Your task to perform on an android device: Search for Mexican restaurants on Maps Image 0: 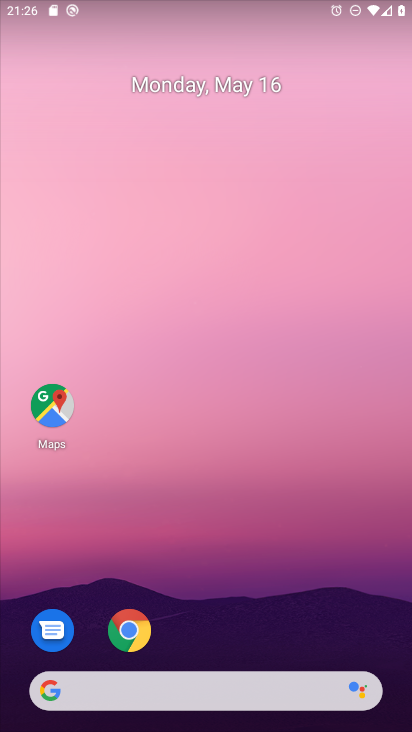
Step 0: click (63, 414)
Your task to perform on an android device: Search for Mexican restaurants on Maps Image 1: 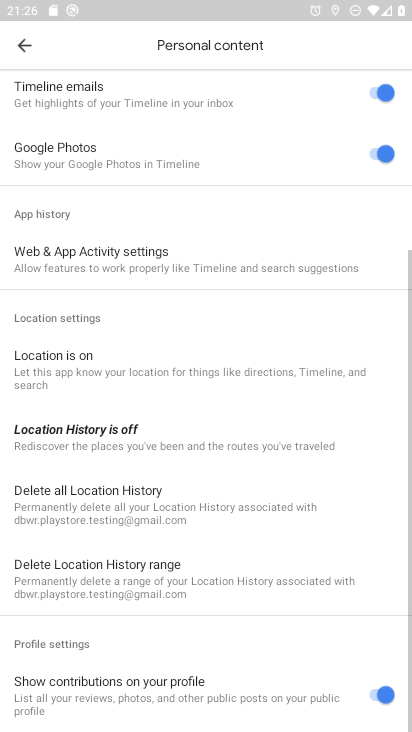
Step 1: click (23, 56)
Your task to perform on an android device: Search for Mexican restaurants on Maps Image 2: 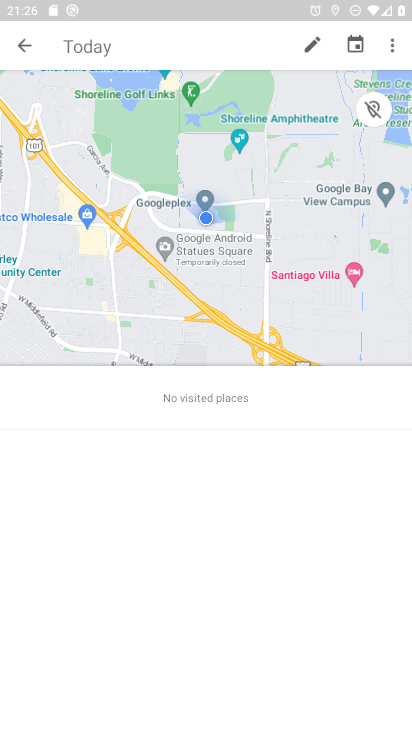
Step 2: click (23, 56)
Your task to perform on an android device: Search for Mexican restaurants on Maps Image 3: 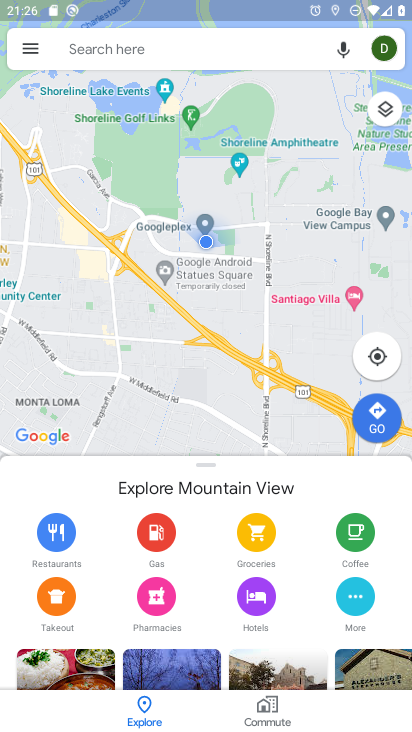
Step 3: click (118, 44)
Your task to perform on an android device: Search for Mexican restaurants on Maps Image 4: 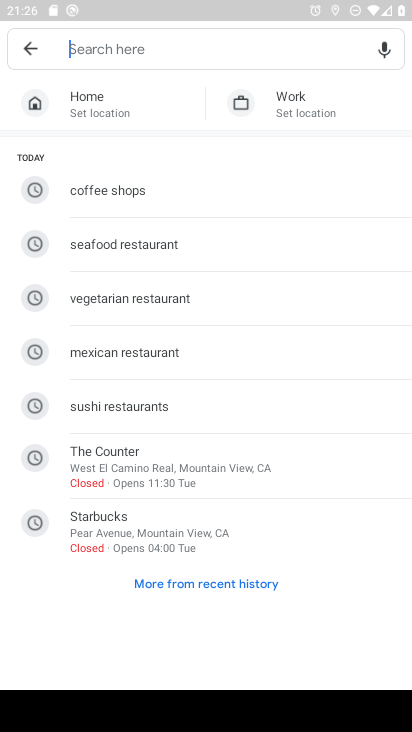
Step 4: click (80, 346)
Your task to perform on an android device: Search for Mexican restaurants on Maps Image 5: 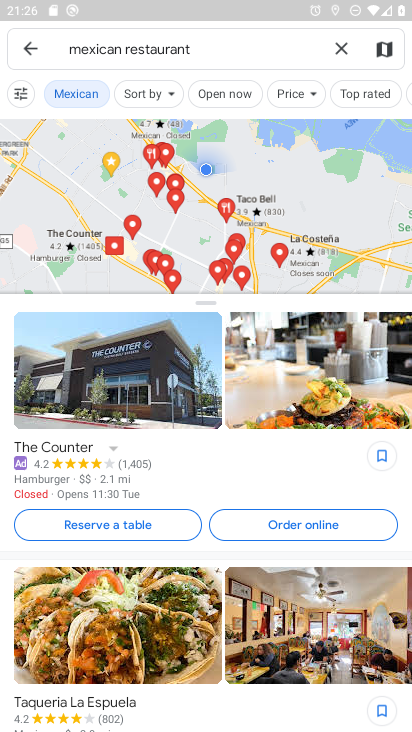
Step 5: task complete